Your task to perform on an android device: toggle improve location accuracy Image 0: 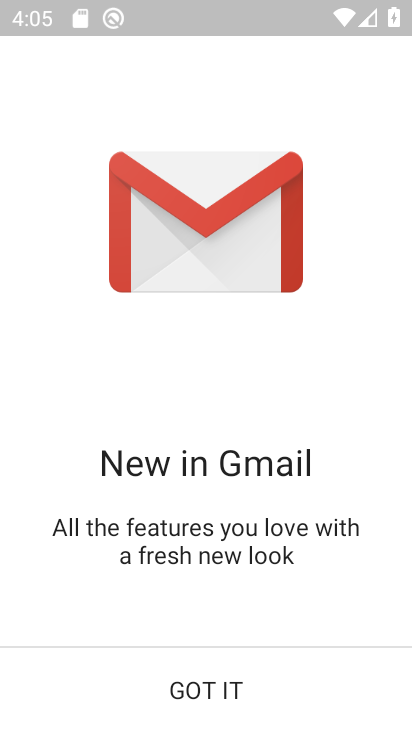
Step 0: press home button
Your task to perform on an android device: toggle improve location accuracy Image 1: 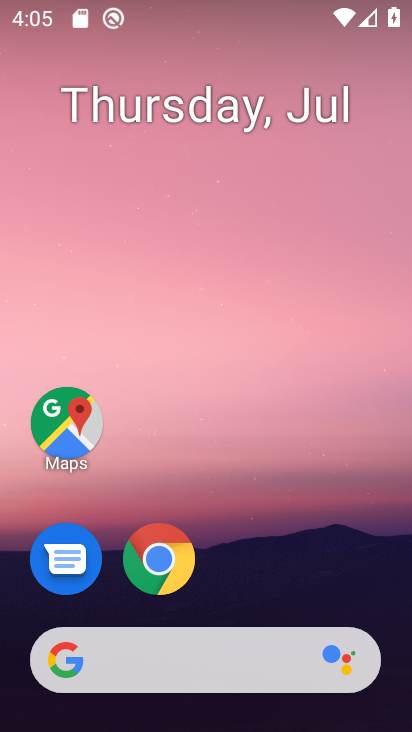
Step 1: drag from (254, 624) to (283, 164)
Your task to perform on an android device: toggle improve location accuracy Image 2: 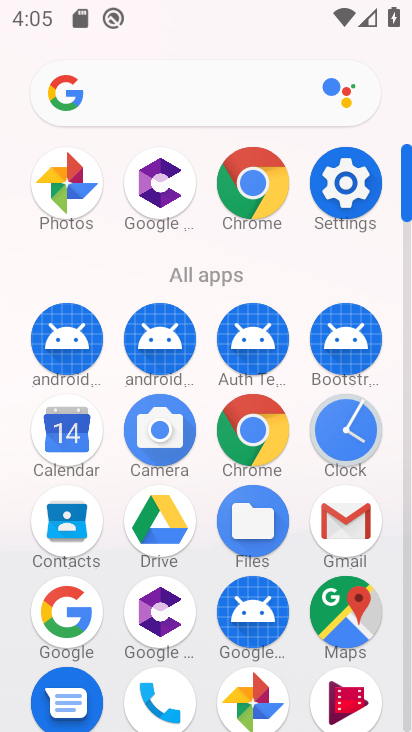
Step 2: click (334, 230)
Your task to perform on an android device: toggle improve location accuracy Image 3: 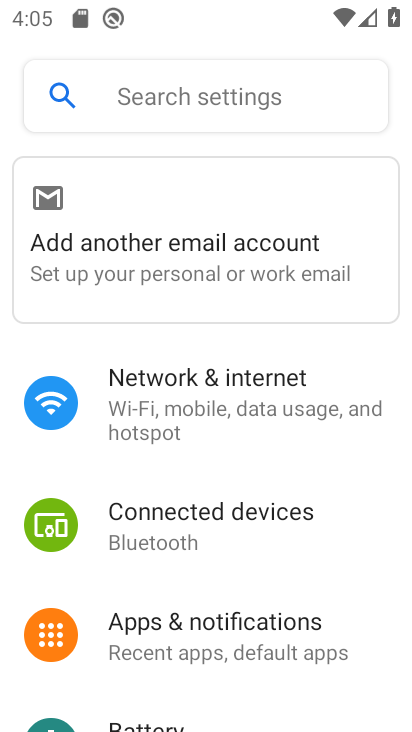
Step 3: drag from (204, 531) to (243, 251)
Your task to perform on an android device: toggle improve location accuracy Image 4: 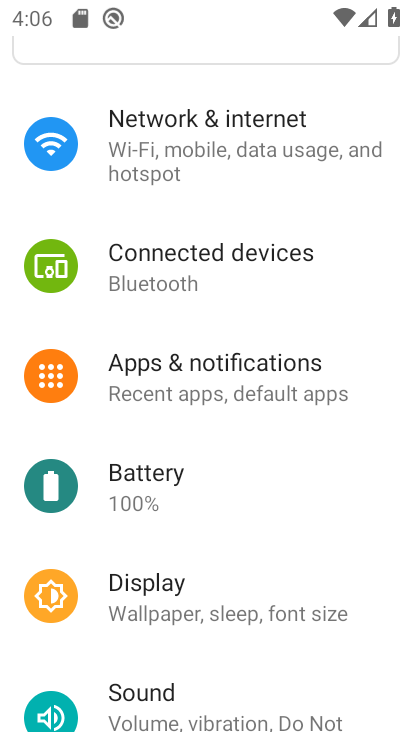
Step 4: drag from (265, 523) to (268, 347)
Your task to perform on an android device: toggle improve location accuracy Image 5: 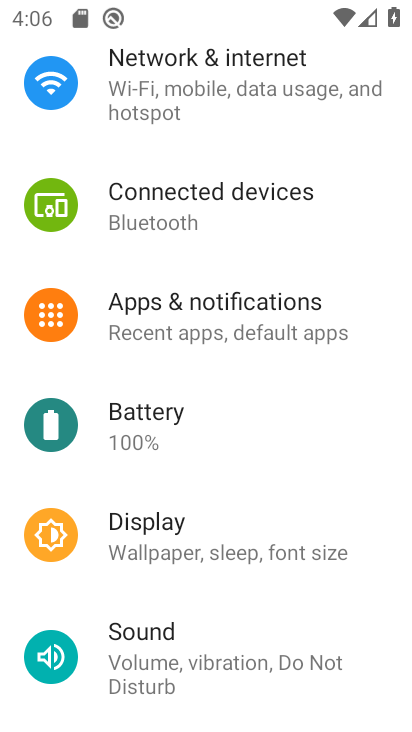
Step 5: drag from (226, 619) to (262, 333)
Your task to perform on an android device: toggle improve location accuracy Image 6: 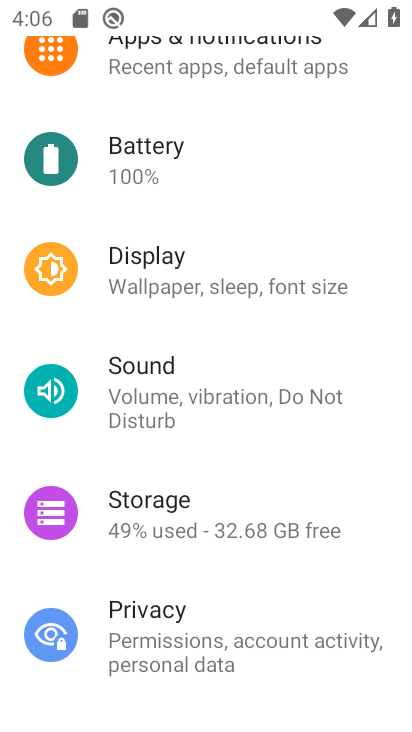
Step 6: drag from (239, 557) to (236, 242)
Your task to perform on an android device: toggle improve location accuracy Image 7: 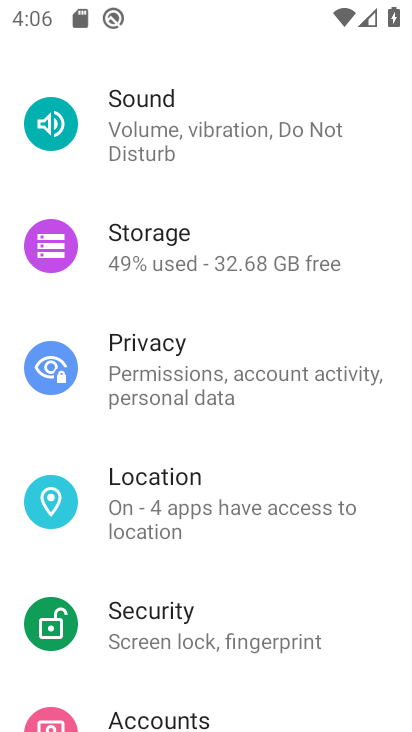
Step 7: click (221, 497)
Your task to perform on an android device: toggle improve location accuracy Image 8: 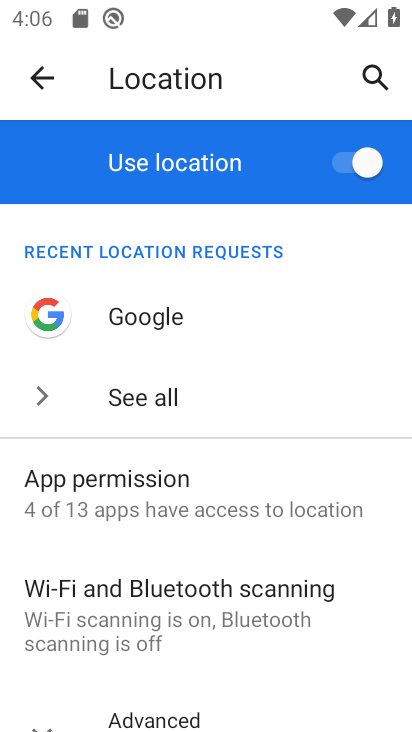
Step 8: drag from (222, 580) to (242, 320)
Your task to perform on an android device: toggle improve location accuracy Image 9: 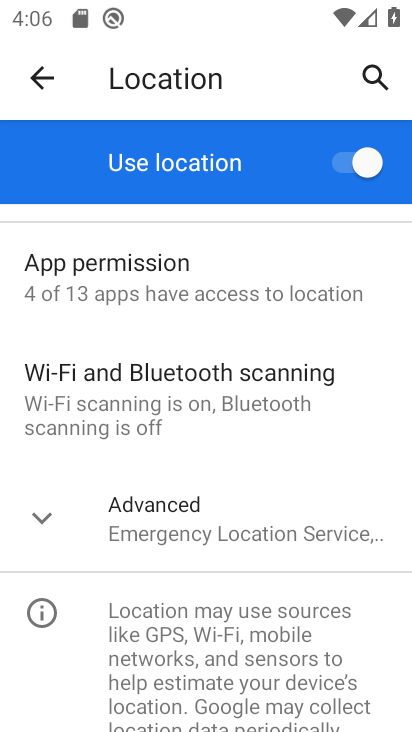
Step 9: click (200, 516)
Your task to perform on an android device: toggle improve location accuracy Image 10: 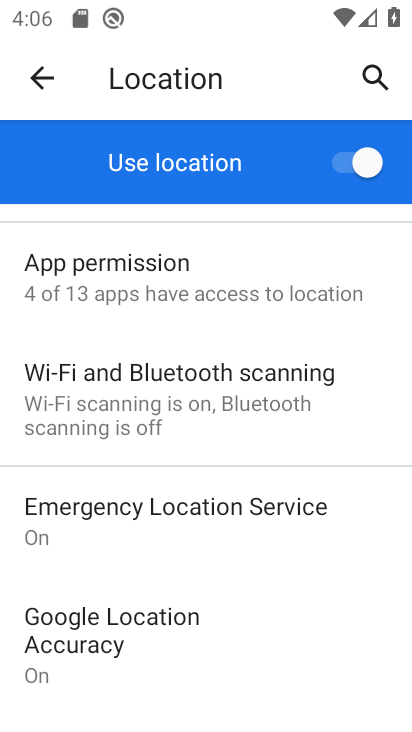
Step 10: click (168, 647)
Your task to perform on an android device: toggle improve location accuracy Image 11: 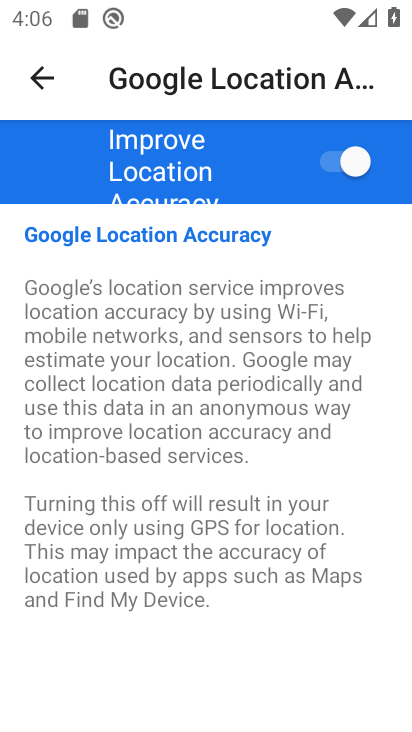
Step 11: click (330, 170)
Your task to perform on an android device: toggle improve location accuracy Image 12: 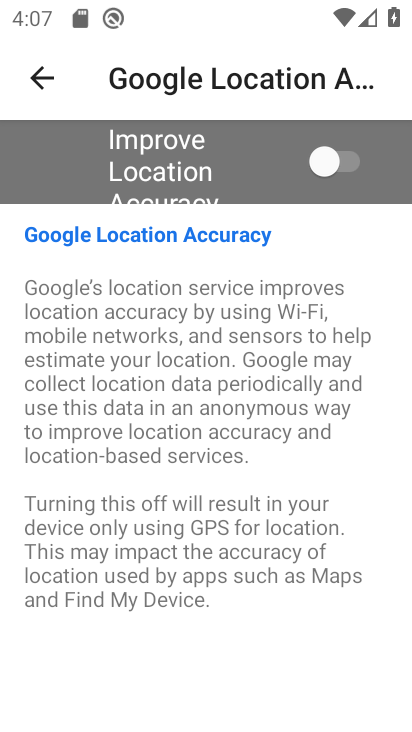
Step 12: task complete